Your task to perform on an android device: Open Youtube and go to the subscriptions tab Image 0: 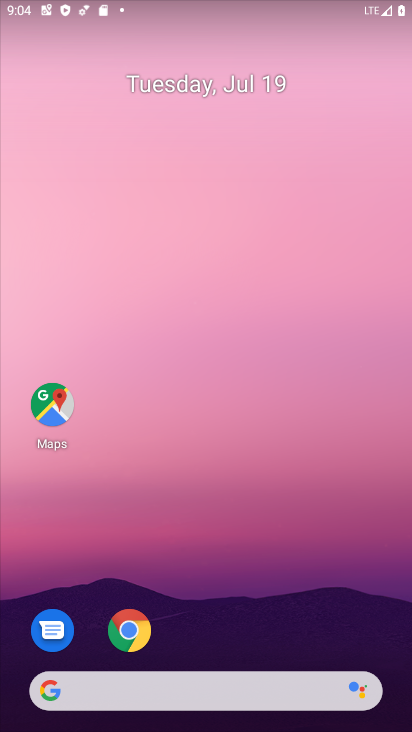
Step 0: drag from (226, 639) to (291, 154)
Your task to perform on an android device: Open Youtube and go to the subscriptions tab Image 1: 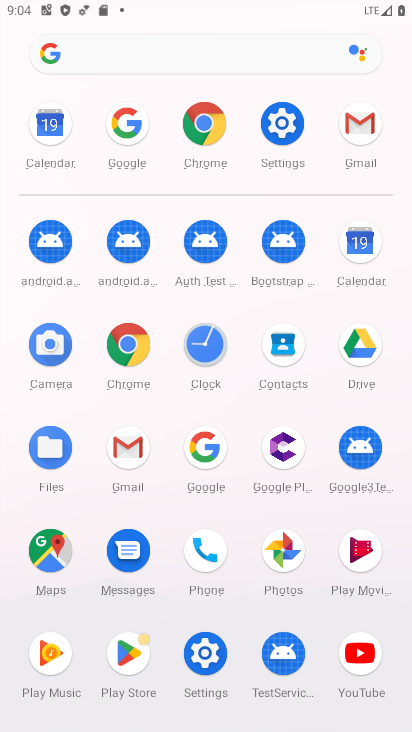
Step 1: click (355, 647)
Your task to perform on an android device: Open Youtube and go to the subscriptions tab Image 2: 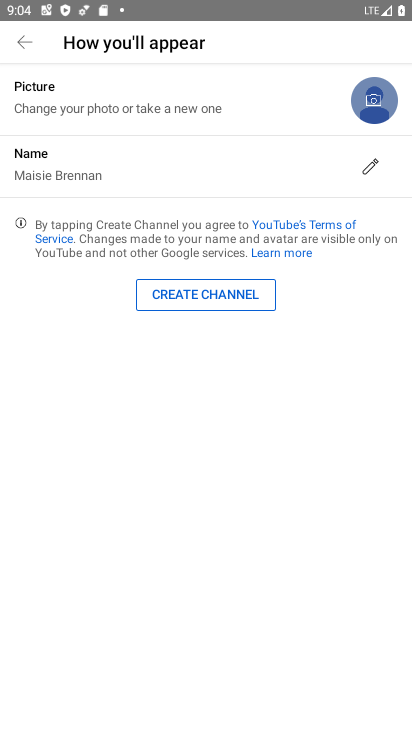
Step 2: press back button
Your task to perform on an android device: Open Youtube and go to the subscriptions tab Image 3: 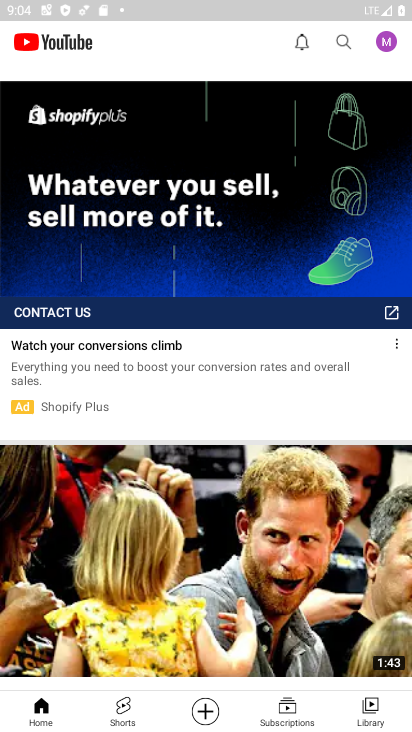
Step 3: click (290, 710)
Your task to perform on an android device: Open Youtube and go to the subscriptions tab Image 4: 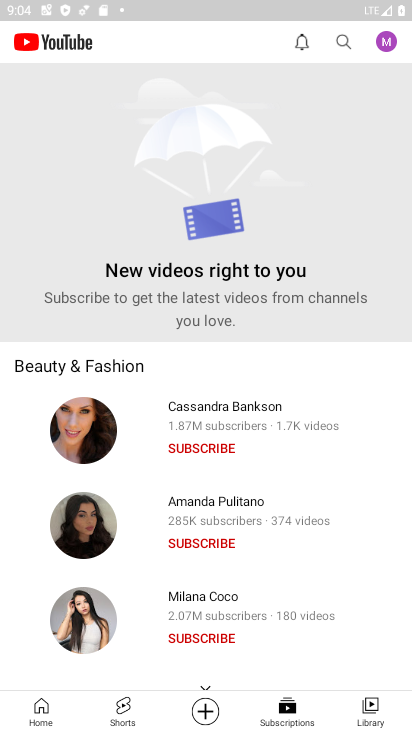
Step 4: task complete